Your task to perform on an android device: turn off improve location accuracy Image 0: 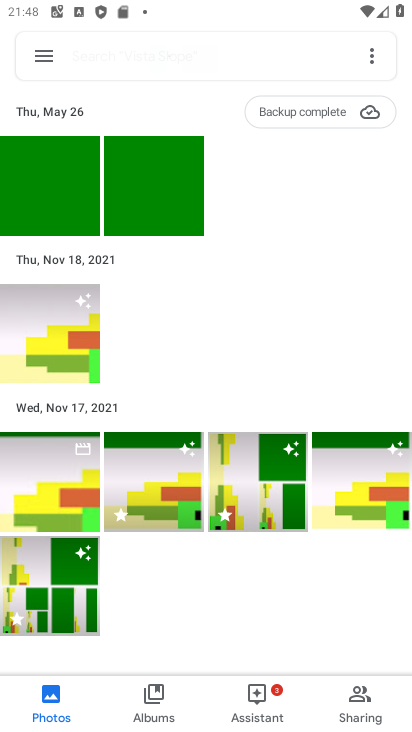
Step 0: press home button
Your task to perform on an android device: turn off improve location accuracy Image 1: 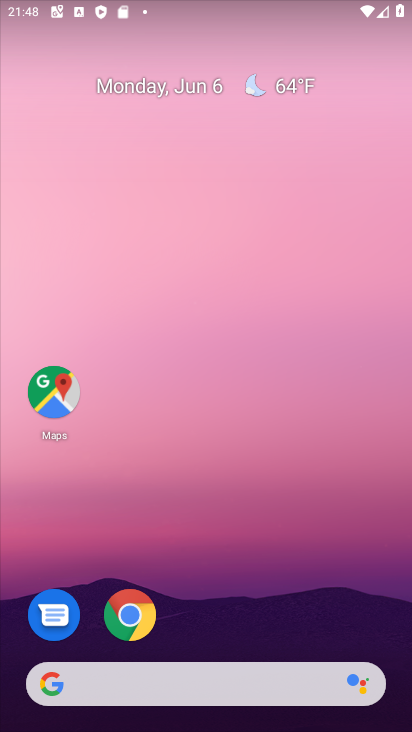
Step 1: drag from (389, 686) to (370, 124)
Your task to perform on an android device: turn off improve location accuracy Image 2: 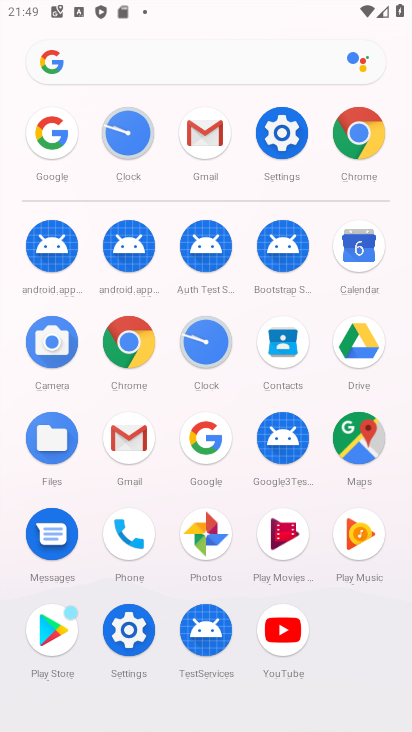
Step 2: click (124, 625)
Your task to perform on an android device: turn off improve location accuracy Image 3: 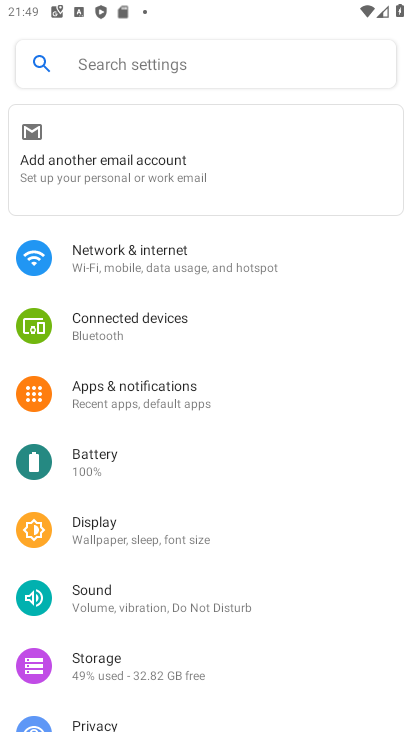
Step 3: drag from (215, 686) to (213, 352)
Your task to perform on an android device: turn off improve location accuracy Image 4: 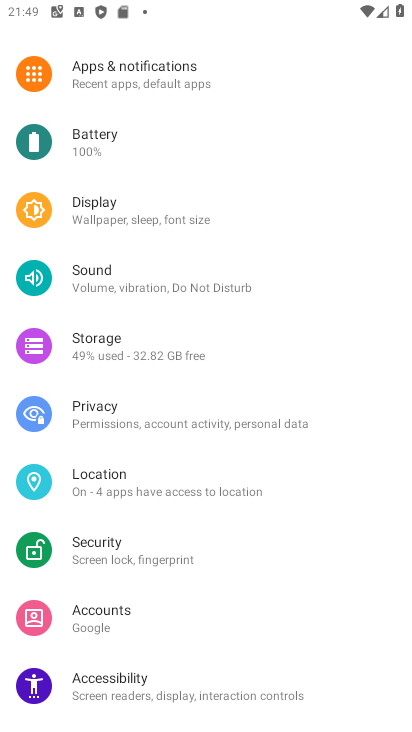
Step 4: click (93, 476)
Your task to perform on an android device: turn off improve location accuracy Image 5: 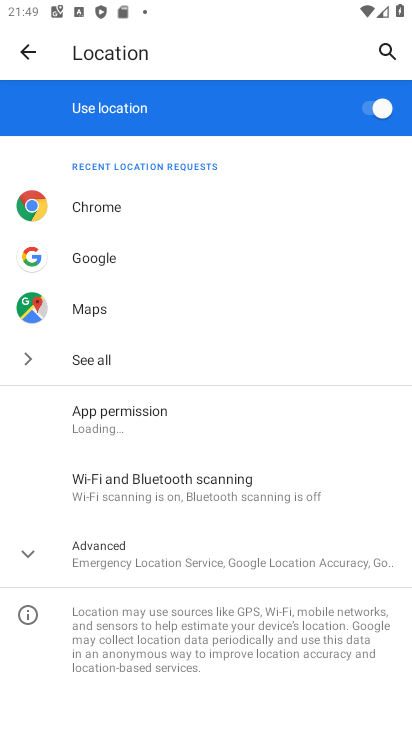
Step 5: click (47, 561)
Your task to perform on an android device: turn off improve location accuracy Image 6: 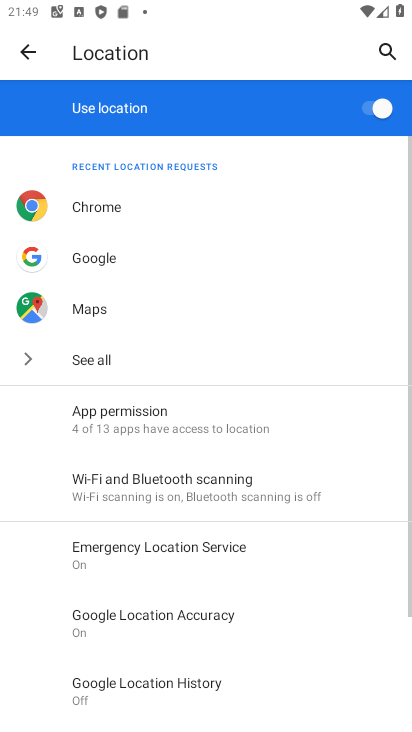
Step 6: click (118, 616)
Your task to perform on an android device: turn off improve location accuracy Image 7: 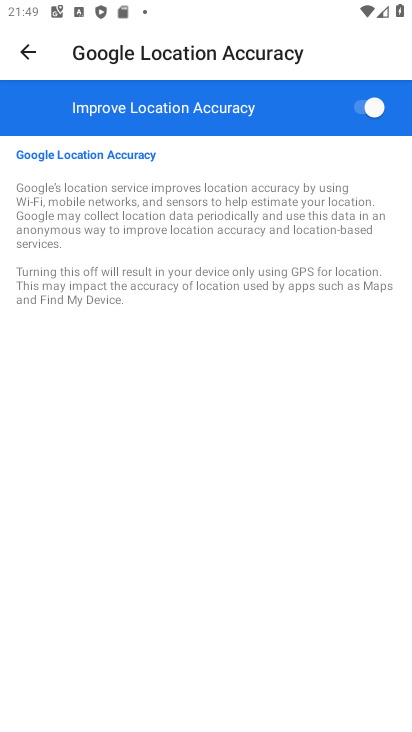
Step 7: click (356, 110)
Your task to perform on an android device: turn off improve location accuracy Image 8: 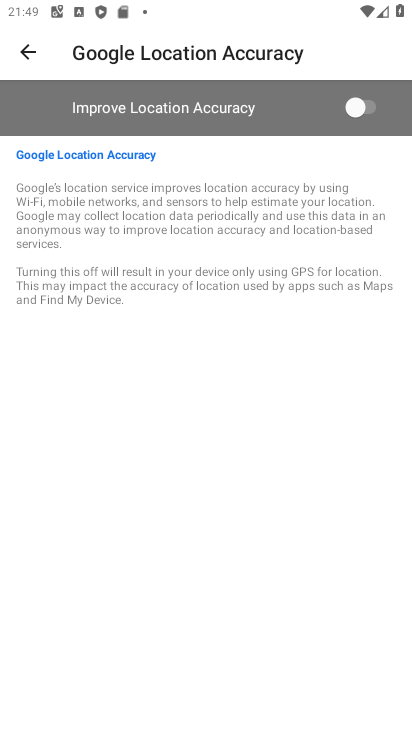
Step 8: task complete